Your task to perform on an android device: change the clock style Image 0: 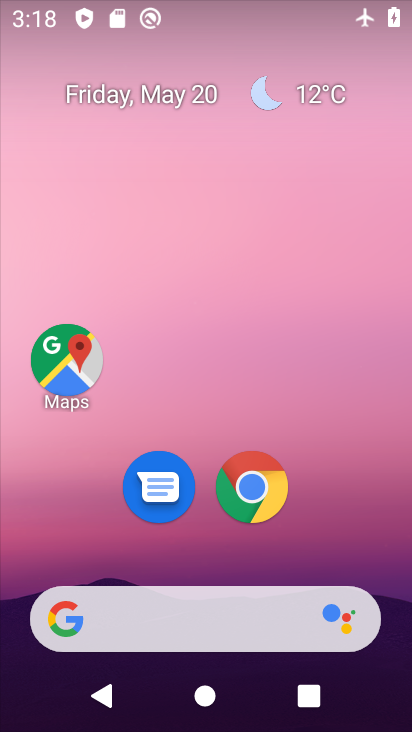
Step 0: drag from (224, 562) to (410, 8)
Your task to perform on an android device: change the clock style Image 1: 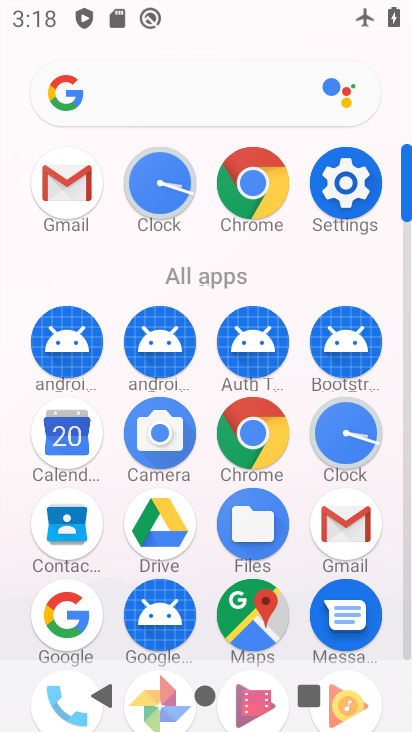
Step 1: click (330, 442)
Your task to perform on an android device: change the clock style Image 2: 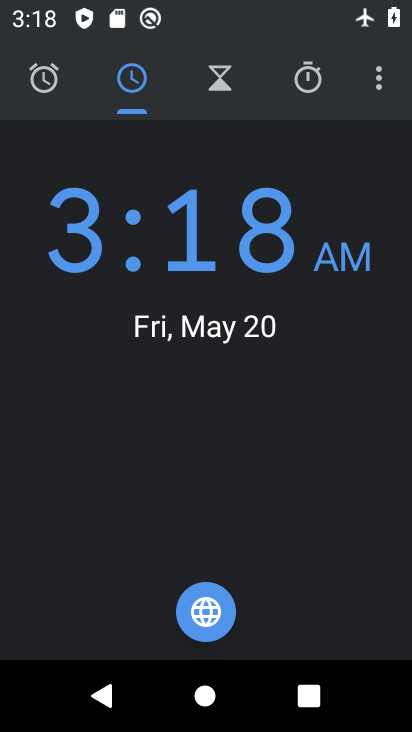
Step 2: click (383, 85)
Your task to perform on an android device: change the clock style Image 3: 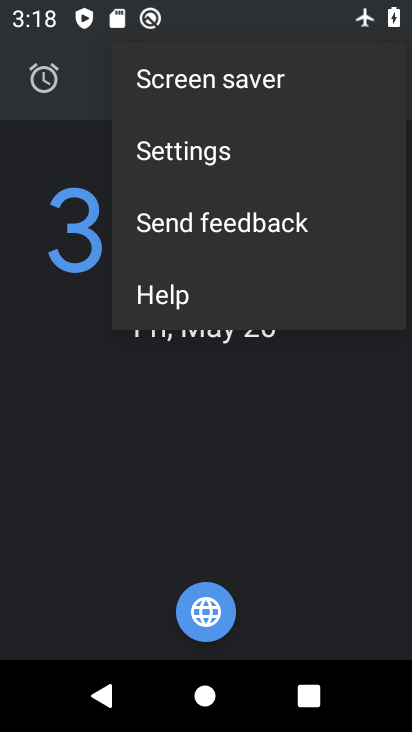
Step 3: click (243, 151)
Your task to perform on an android device: change the clock style Image 4: 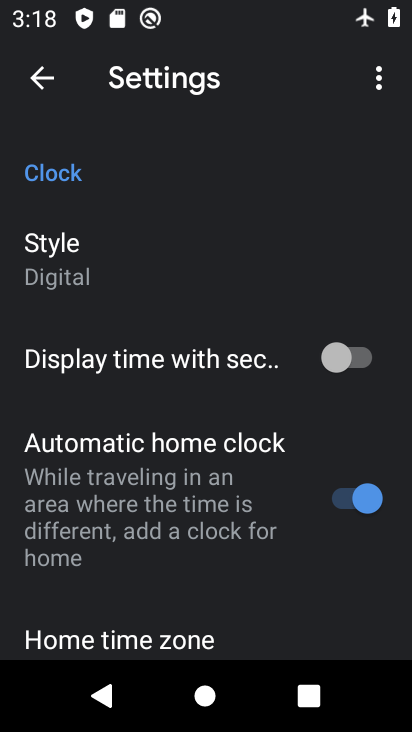
Step 4: click (83, 273)
Your task to perform on an android device: change the clock style Image 5: 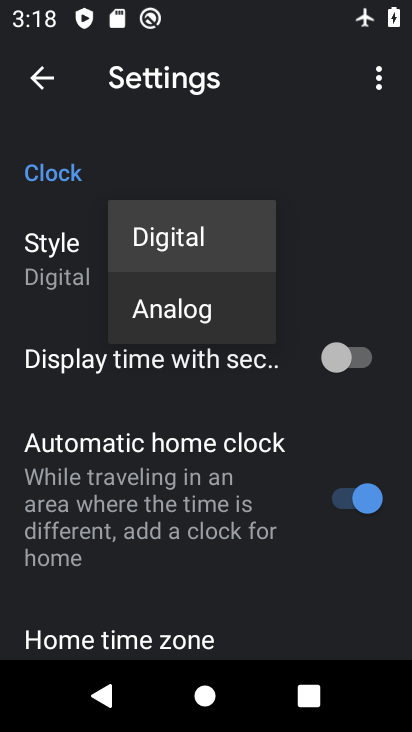
Step 5: click (194, 334)
Your task to perform on an android device: change the clock style Image 6: 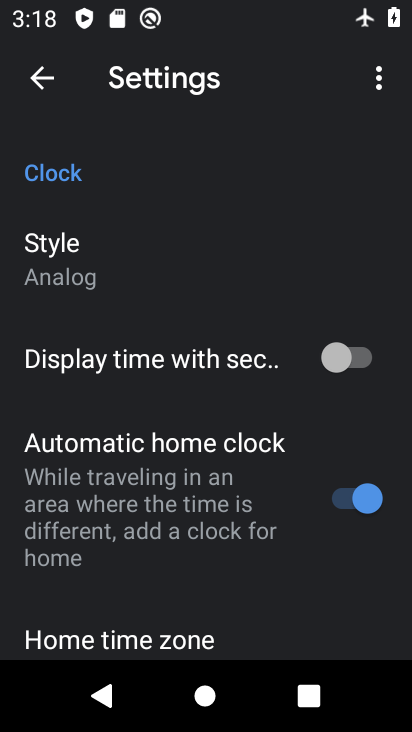
Step 6: task complete